Your task to perform on an android device: Open internet settings Image 0: 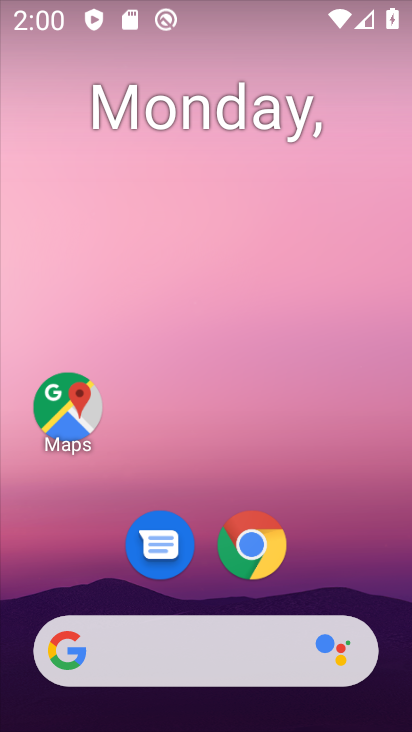
Step 0: drag from (211, 470) to (316, 110)
Your task to perform on an android device: Open internet settings Image 1: 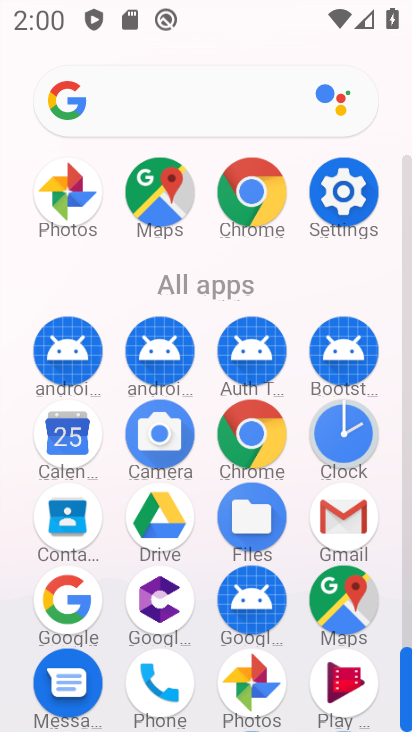
Step 1: click (343, 188)
Your task to perform on an android device: Open internet settings Image 2: 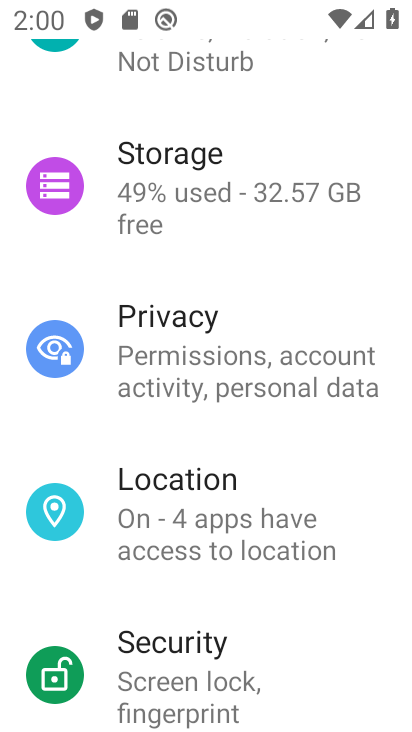
Step 2: drag from (241, 162) to (188, 726)
Your task to perform on an android device: Open internet settings Image 3: 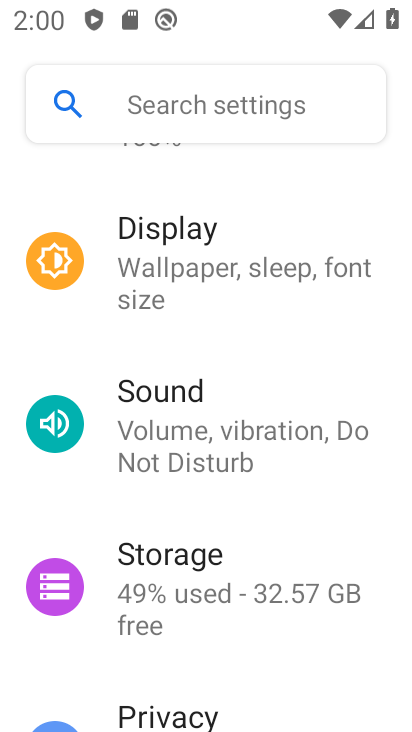
Step 3: drag from (198, 222) to (147, 731)
Your task to perform on an android device: Open internet settings Image 4: 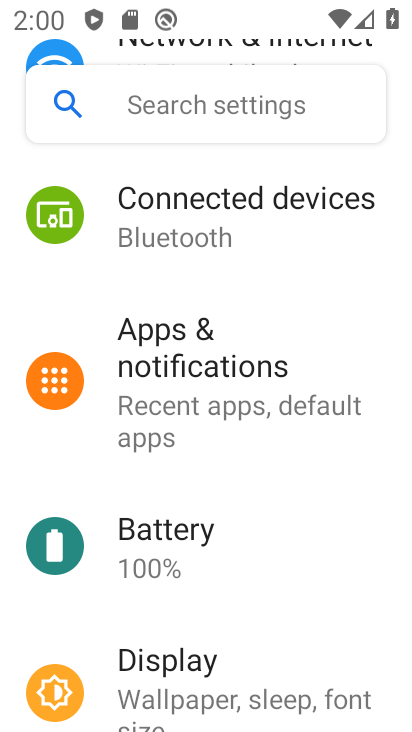
Step 4: drag from (237, 344) to (228, 725)
Your task to perform on an android device: Open internet settings Image 5: 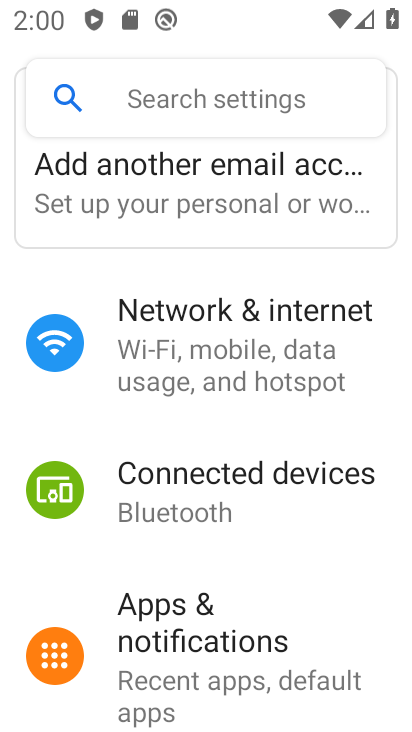
Step 5: click (261, 346)
Your task to perform on an android device: Open internet settings Image 6: 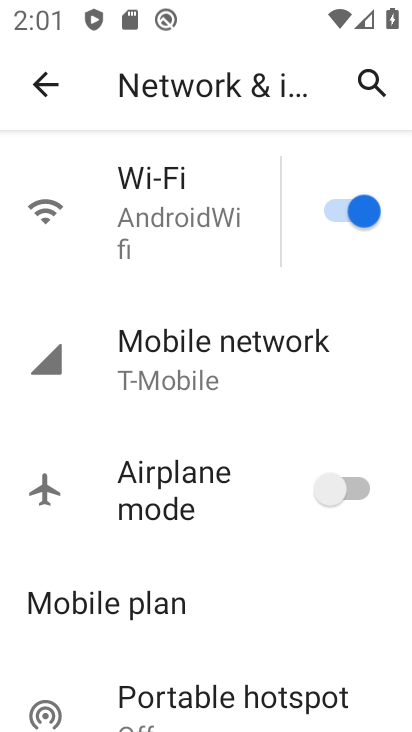
Step 6: task complete